Your task to perform on an android device: turn notification dots off Image 0: 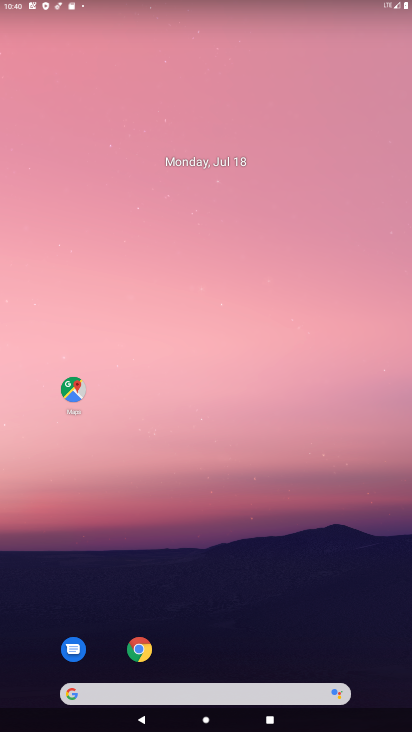
Step 0: drag from (188, 724) to (153, 75)
Your task to perform on an android device: turn notification dots off Image 1: 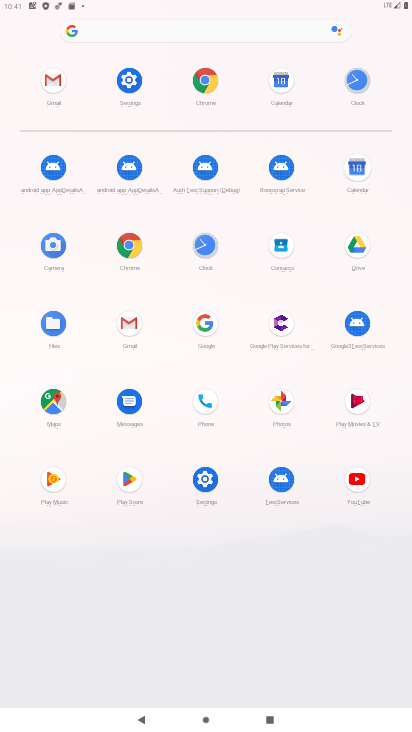
Step 1: click (130, 79)
Your task to perform on an android device: turn notification dots off Image 2: 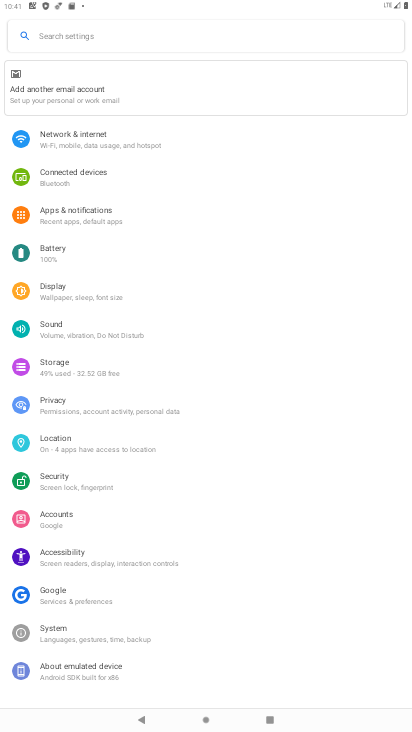
Step 2: click (127, 210)
Your task to perform on an android device: turn notification dots off Image 3: 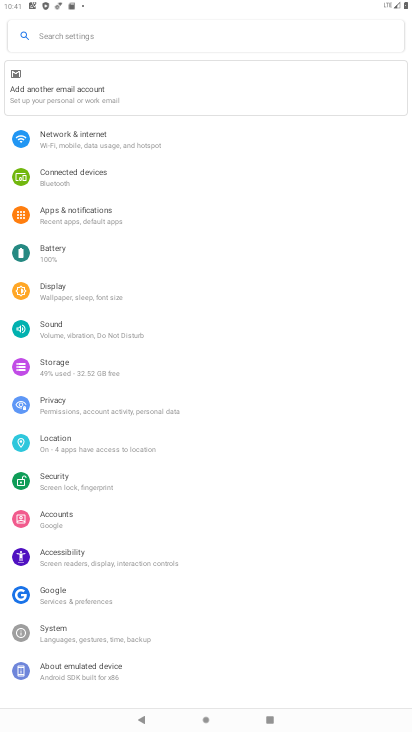
Step 3: click (121, 219)
Your task to perform on an android device: turn notification dots off Image 4: 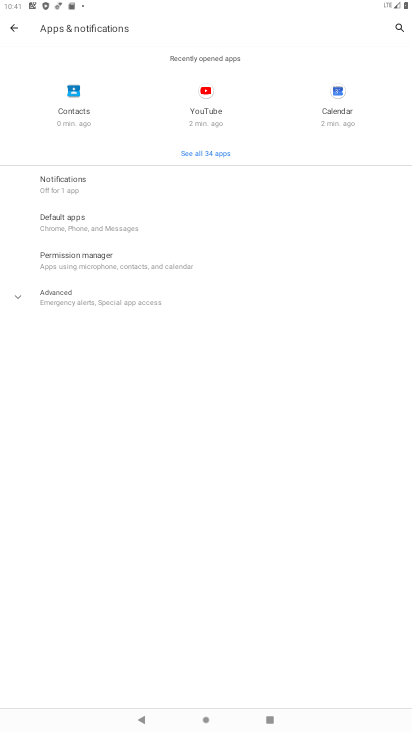
Step 4: click (142, 302)
Your task to perform on an android device: turn notification dots off Image 5: 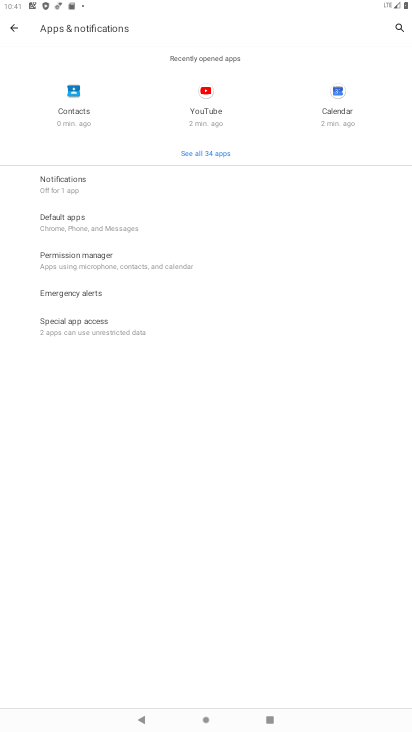
Step 5: click (148, 186)
Your task to perform on an android device: turn notification dots off Image 6: 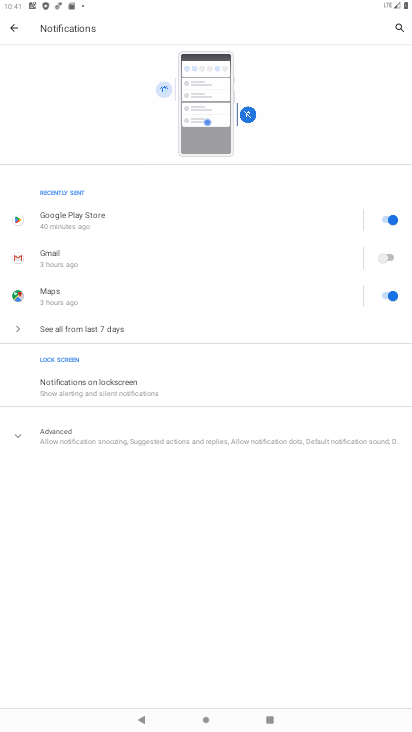
Step 6: click (232, 435)
Your task to perform on an android device: turn notification dots off Image 7: 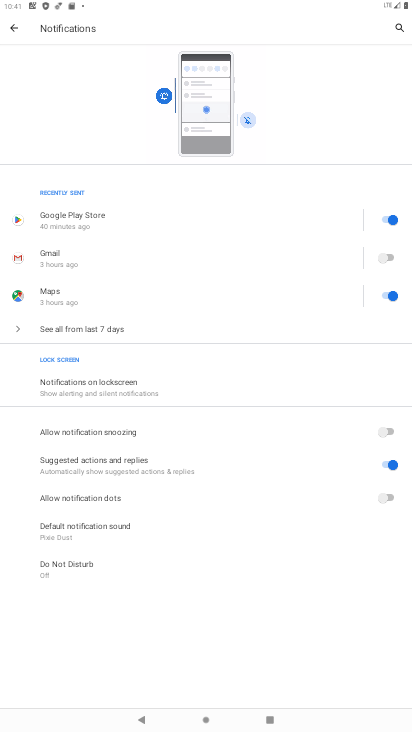
Step 7: task complete